Your task to perform on an android device: turn notification dots on Image 0: 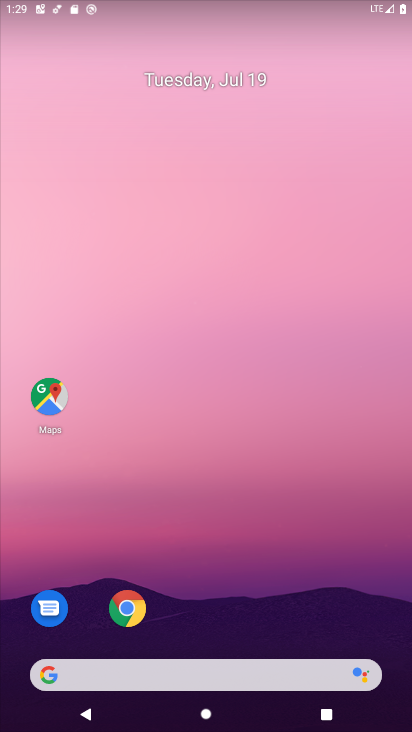
Step 0: drag from (202, 569) to (192, 59)
Your task to perform on an android device: turn notification dots on Image 1: 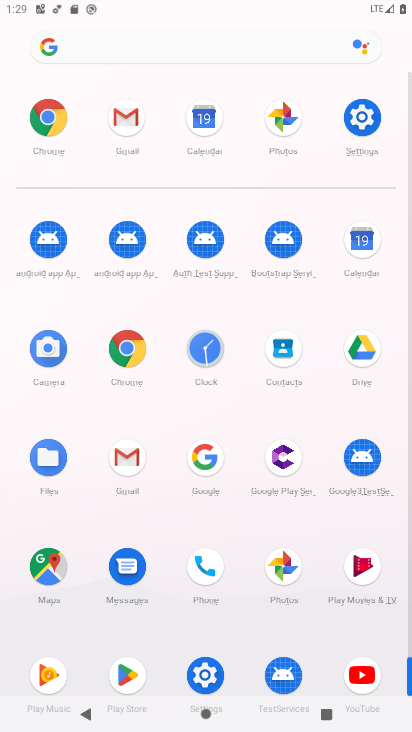
Step 1: click (195, 680)
Your task to perform on an android device: turn notification dots on Image 2: 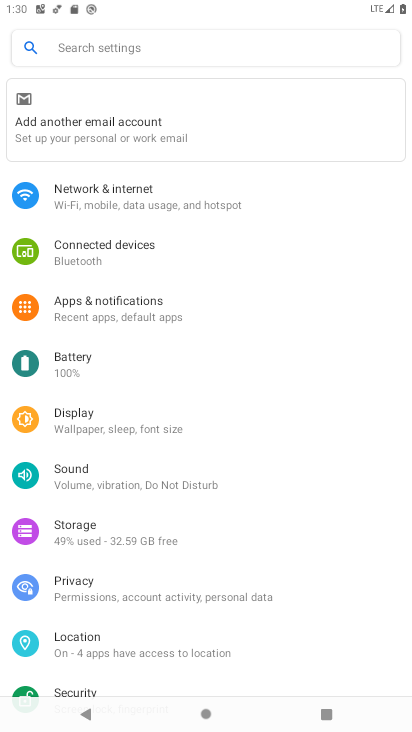
Step 2: click (158, 309)
Your task to perform on an android device: turn notification dots on Image 3: 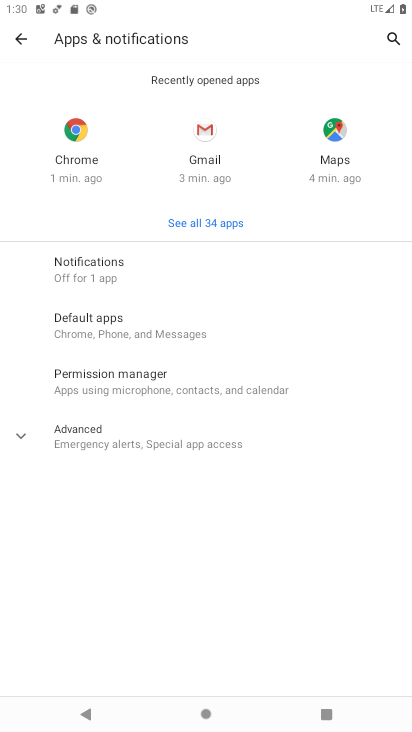
Step 3: click (156, 264)
Your task to perform on an android device: turn notification dots on Image 4: 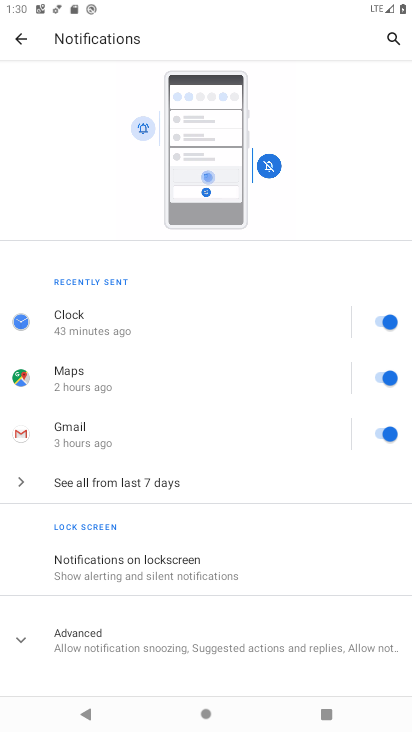
Step 4: click (171, 657)
Your task to perform on an android device: turn notification dots on Image 5: 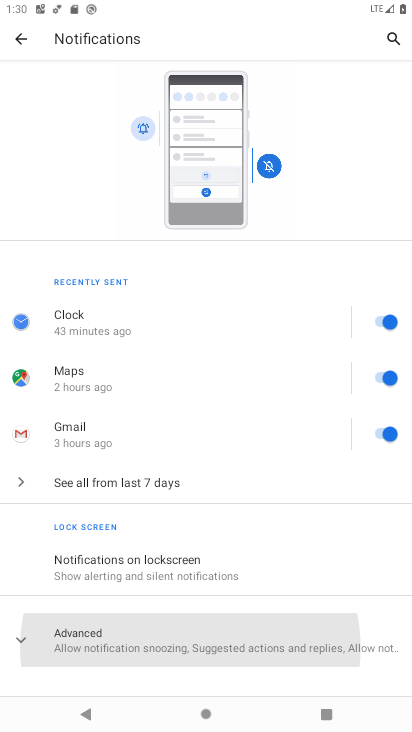
Step 5: drag from (169, 634) to (265, 113)
Your task to perform on an android device: turn notification dots on Image 6: 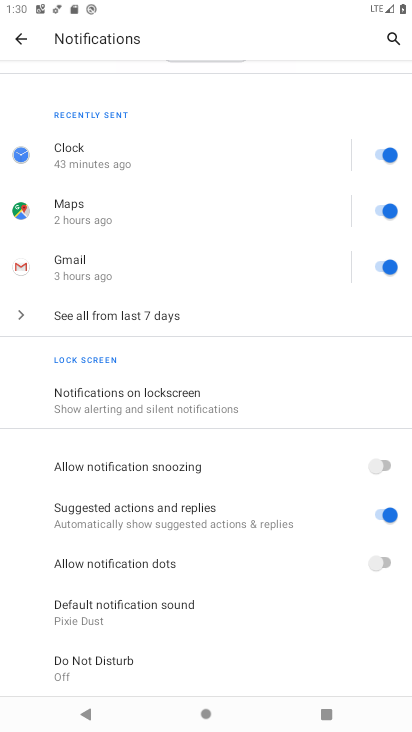
Step 6: click (377, 564)
Your task to perform on an android device: turn notification dots on Image 7: 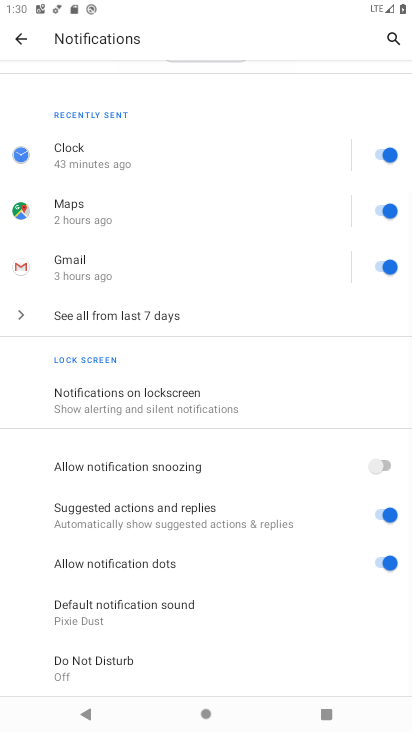
Step 7: task complete